Your task to perform on an android device: find which apps use the phone's location Image 0: 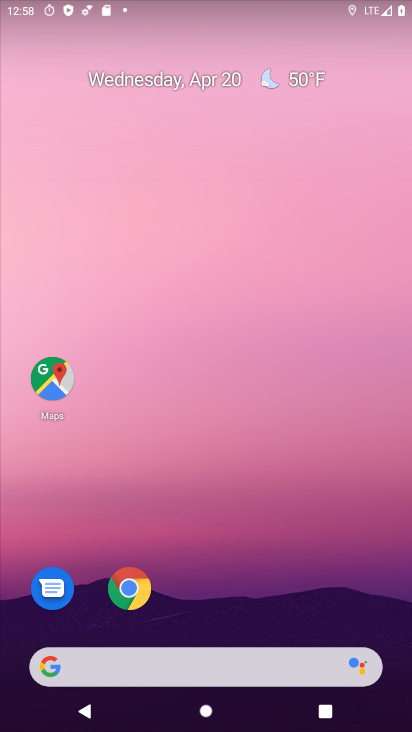
Step 0: drag from (220, 637) to (192, 16)
Your task to perform on an android device: find which apps use the phone's location Image 1: 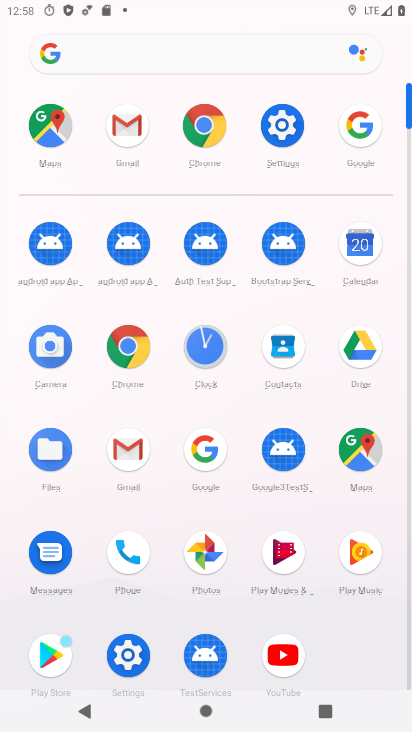
Step 1: click (281, 127)
Your task to perform on an android device: find which apps use the phone's location Image 2: 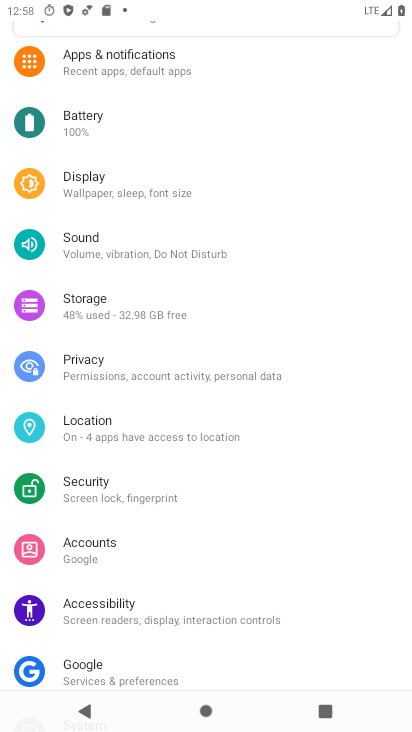
Step 2: click (118, 447)
Your task to perform on an android device: find which apps use the phone's location Image 3: 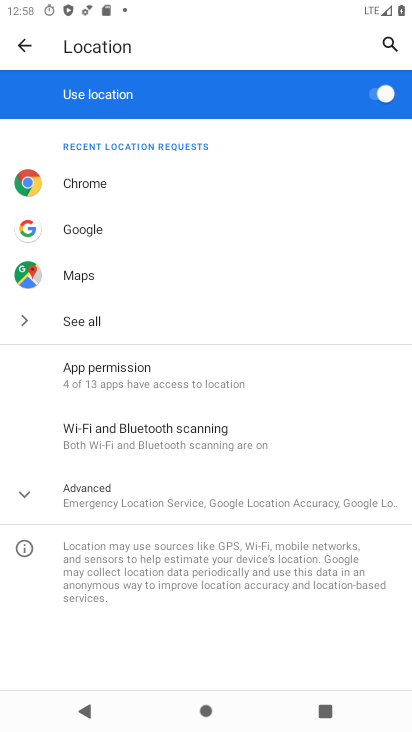
Step 3: click (136, 500)
Your task to perform on an android device: find which apps use the phone's location Image 4: 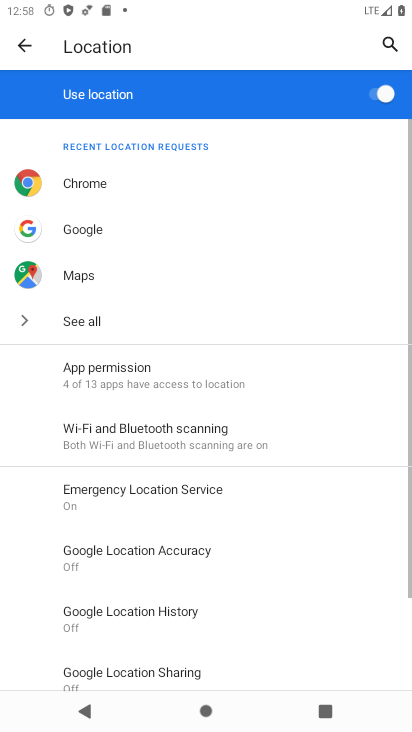
Step 4: click (125, 372)
Your task to perform on an android device: find which apps use the phone's location Image 5: 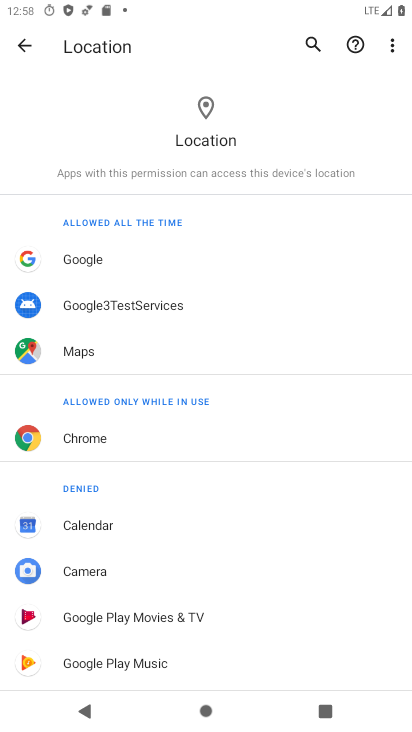
Step 5: task complete